Your task to perform on an android device: change the upload size in google photos Image 0: 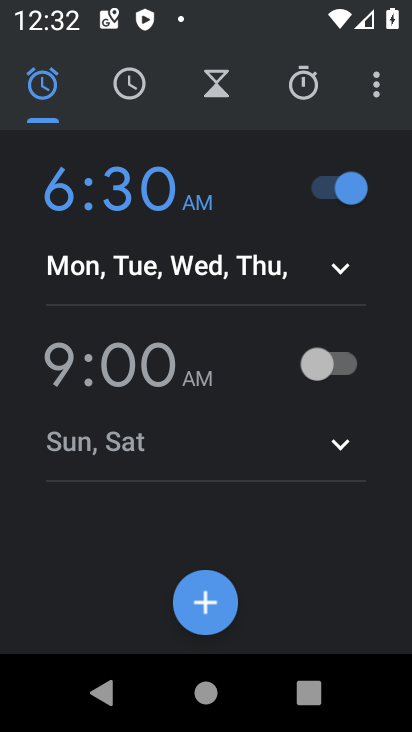
Step 0: press home button
Your task to perform on an android device: change the upload size in google photos Image 1: 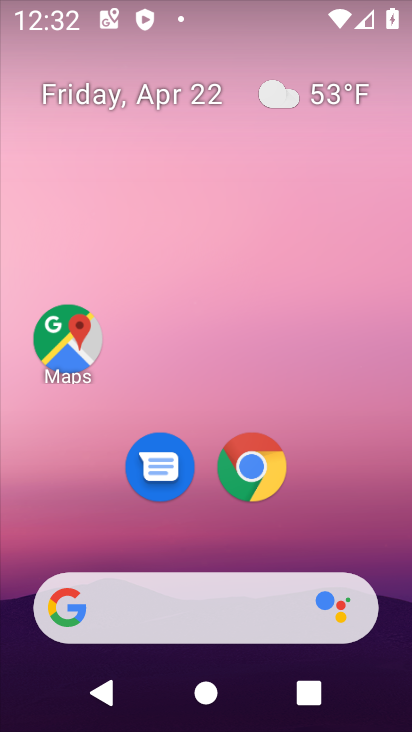
Step 1: drag from (387, 571) to (296, 182)
Your task to perform on an android device: change the upload size in google photos Image 2: 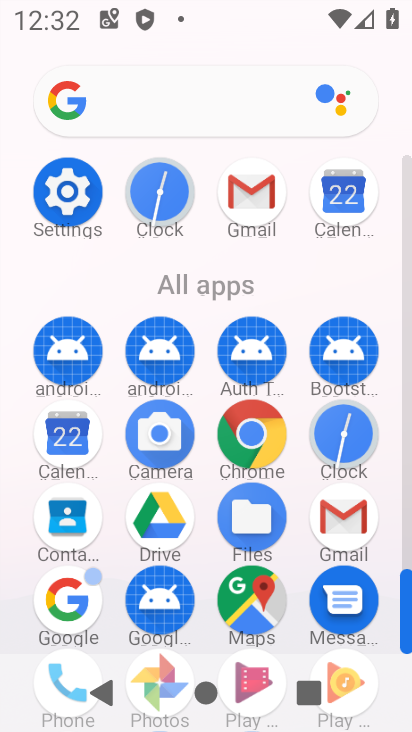
Step 2: drag from (410, 556) to (406, 450)
Your task to perform on an android device: change the upload size in google photos Image 3: 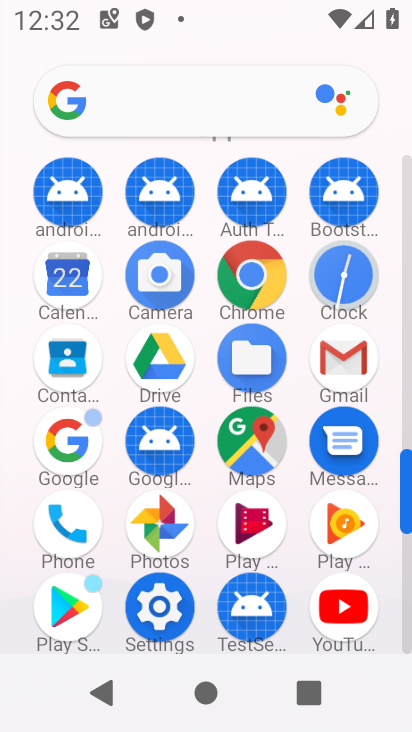
Step 3: click (157, 519)
Your task to perform on an android device: change the upload size in google photos Image 4: 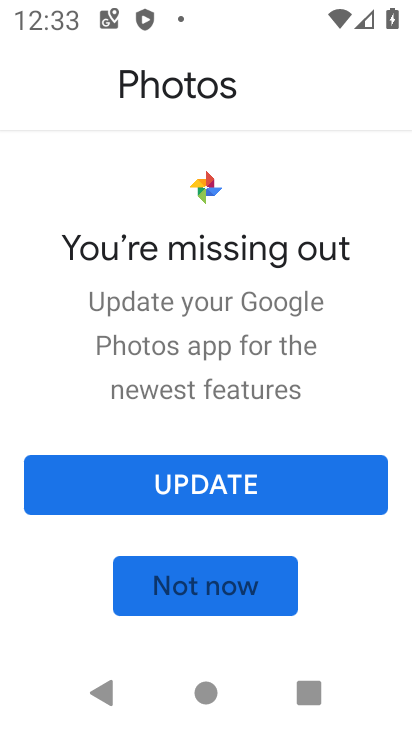
Step 4: click (186, 490)
Your task to perform on an android device: change the upload size in google photos Image 5: 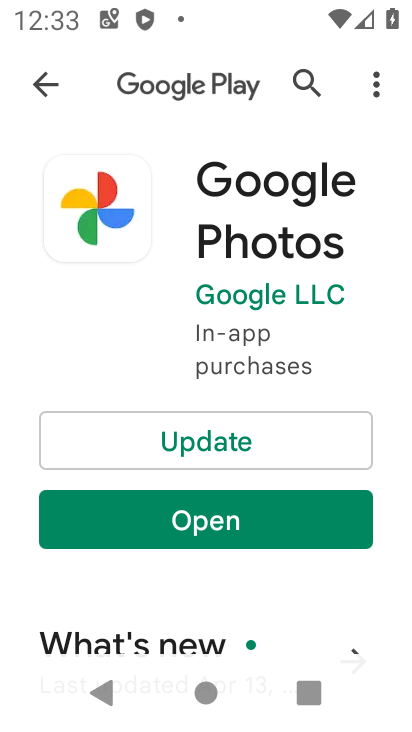
Step 5: click (193, 446)
Your task to perform on an android device: change the upload size in google photos Image 6: 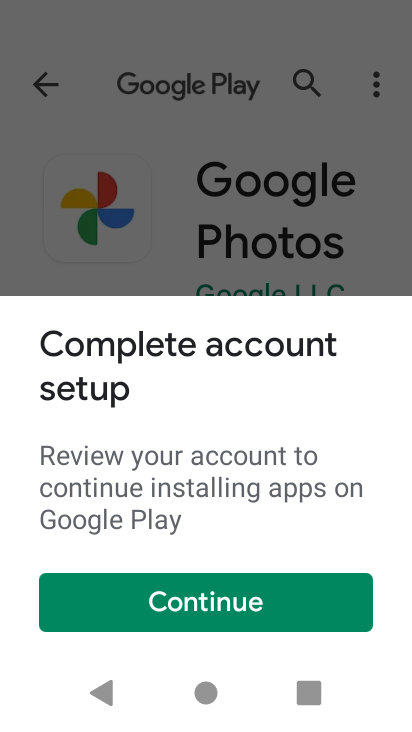
Step 6: task complete